Your task to perform on an android device: Go to network settings Image 0: 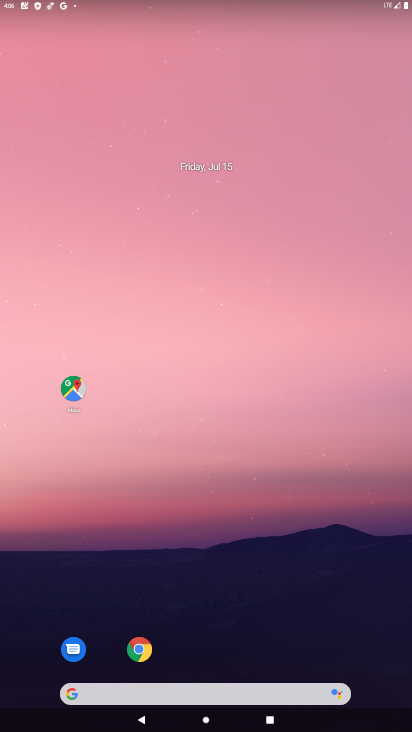
Step 0: drag from (210, 656) to (238, 186)
Your task to perform on an android device: Go to network settings Image 1: 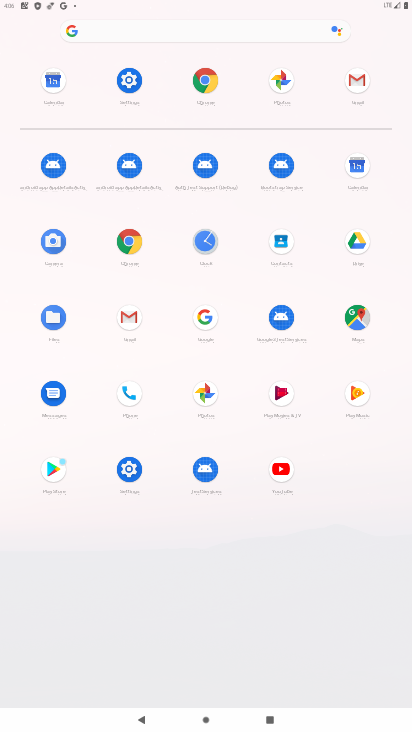
Step 1: click (127, 90)
Your task to perform on an android device: Go to network settings Image 2: 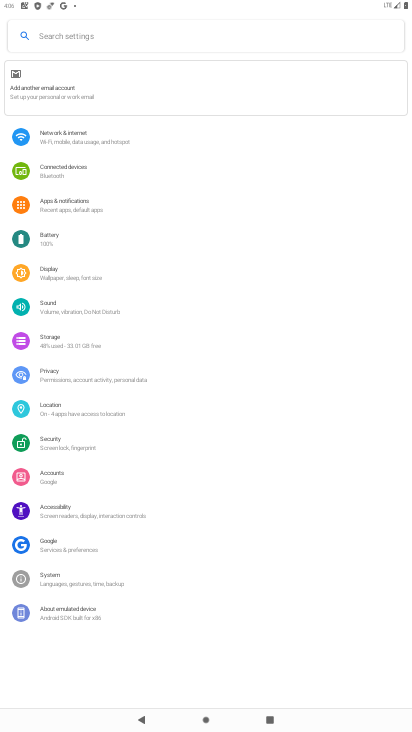
Step 2: click (48, 136)
Your task to perform on an android device: Go to network settings Image 3: 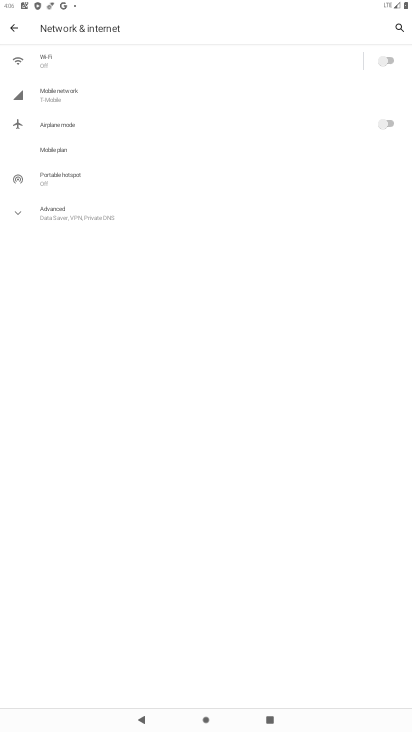
Step 3: task complete